Your task to perform on an android device: delete location history Image 0: 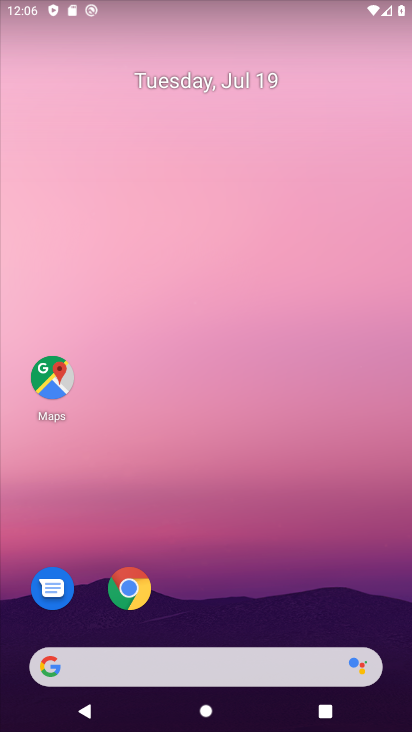
Step 0: drag from (257, 683) to (302, 112)
Your task to perform on an android device: delete location history Image 1: 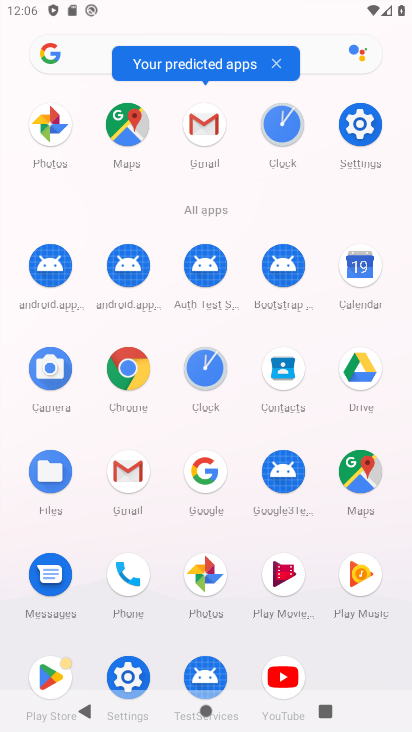
Step 1: click (354, 126)
Your task to perform on an android device: delete location history Image 2: 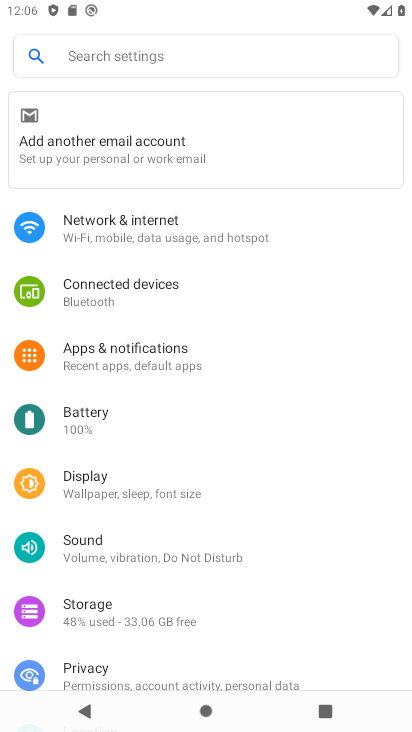
Step 2: drag from (115, 625) to (143, 513)
Your task to perform on an android device: delete location history Image 3: 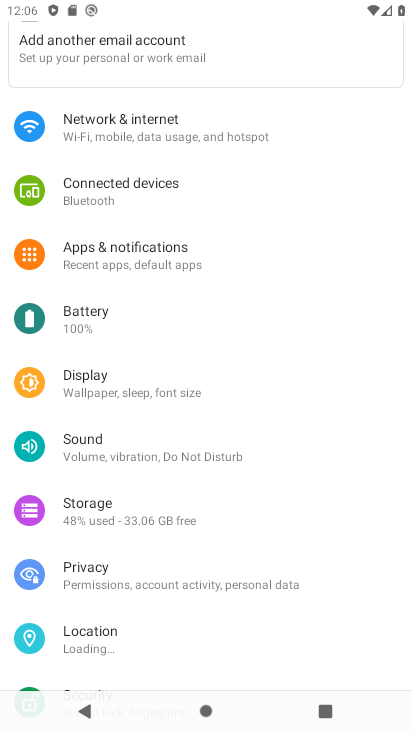
Step 3: click (134, 635)
Your task to perform on an android device: delete location history Image 4: 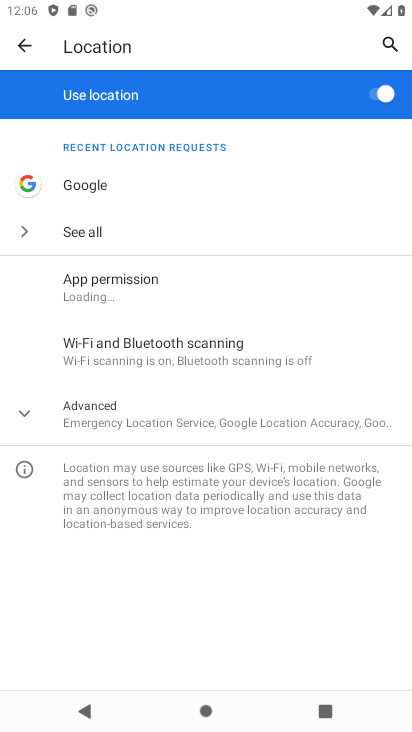
Step 4: click (19, 418)
Your task to perform on an android device: delete location history Image 5: 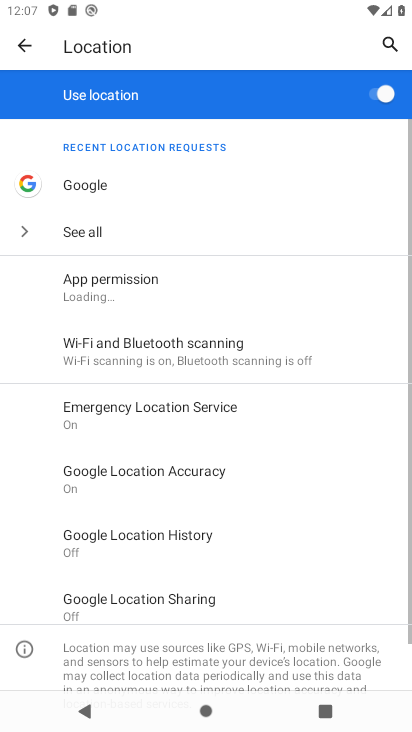
Step 5: click (145, 543)
Your task to perform on an android device: delete location history Image 6: 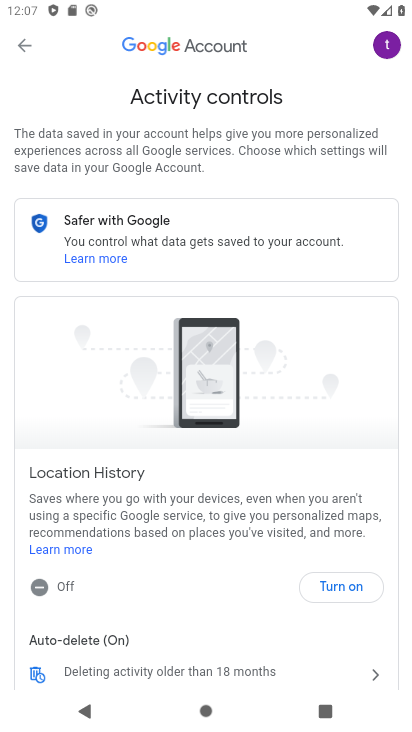
Step 6: drag from (160, 533) to (215, 285)
Your task to perform on an android device: delete location history Image 7: 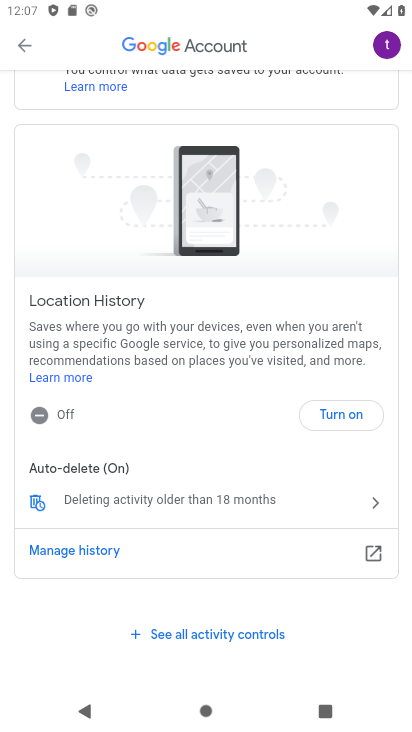
Step 7: click (276, 496)
Your task to perform on an android device: delete location history Image 8: 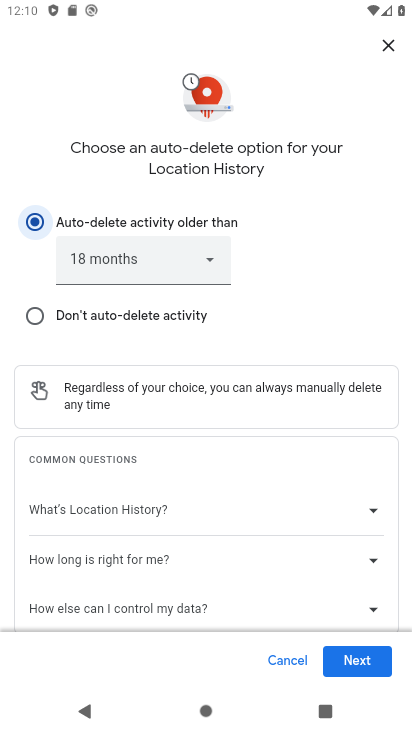
Step 8: task complete